Your task to perform on an android device: Go to display settings Image 0: 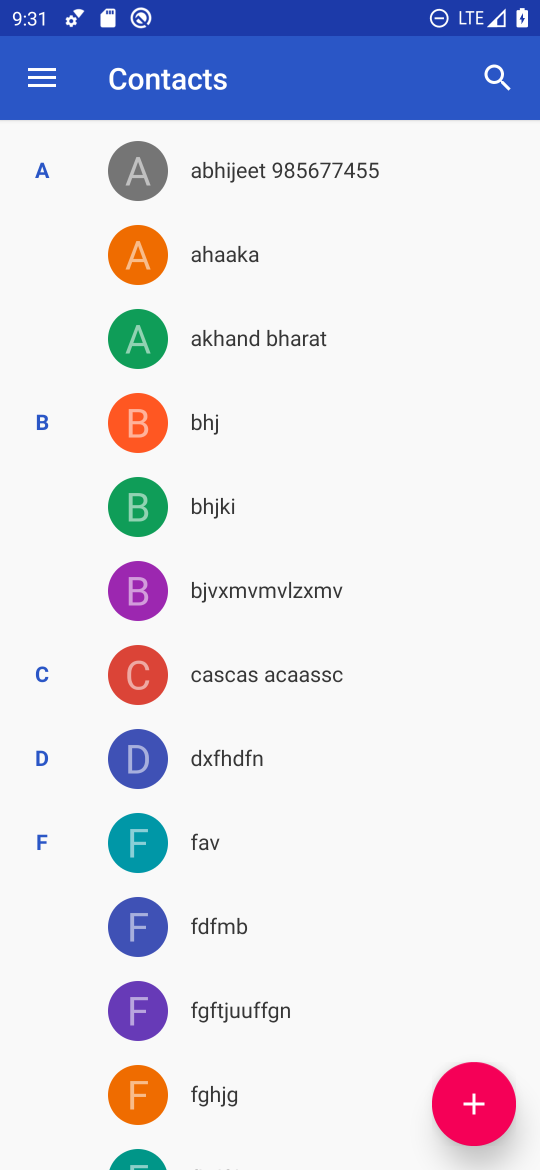
Step 0: press home button
Your task to perform on an android device: Go to display settings Image 1: 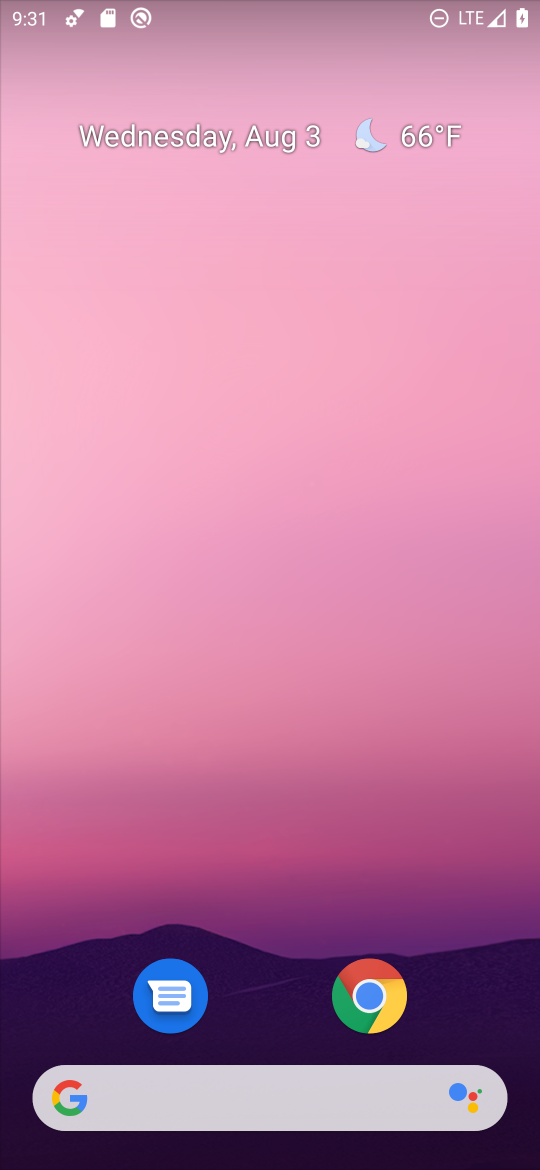
Step 1: drag from (347, 861) to (322, 22)
Your task to perform on an android device: Go to display settings Image 2: 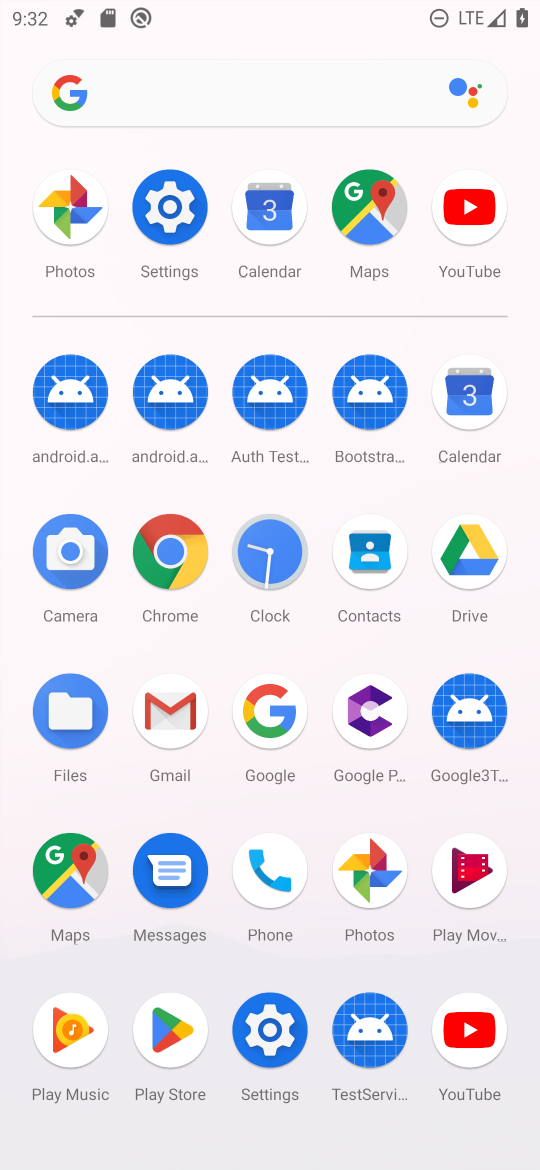
Step 2: click (189, 197)
Your task to perform on an android device: Go to display settings Image 3: 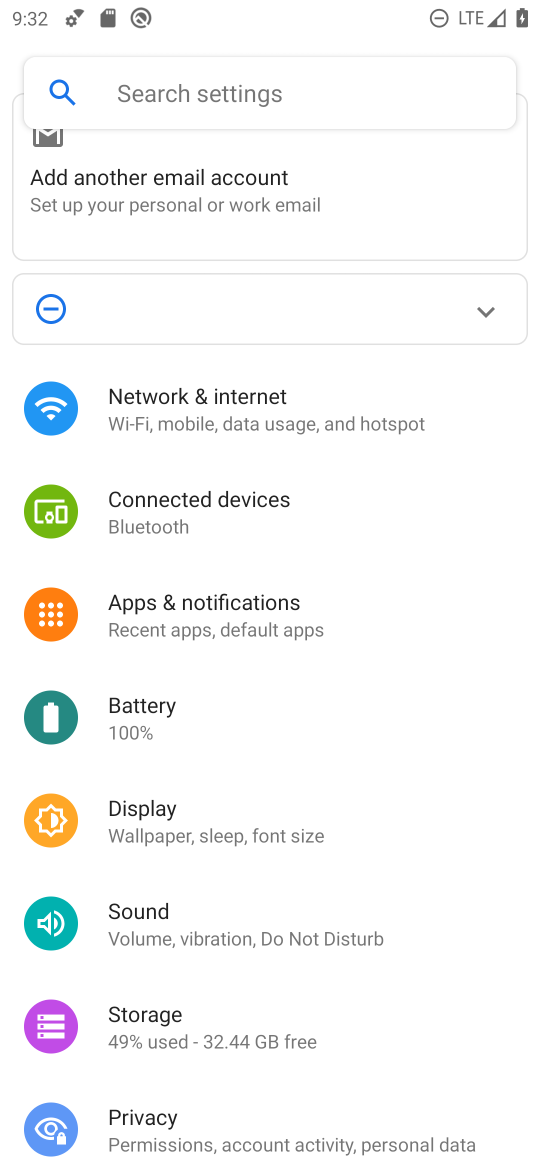
Step 3: click (217, 831)
Your task to perform on an android device: Go to display settings Image 4: 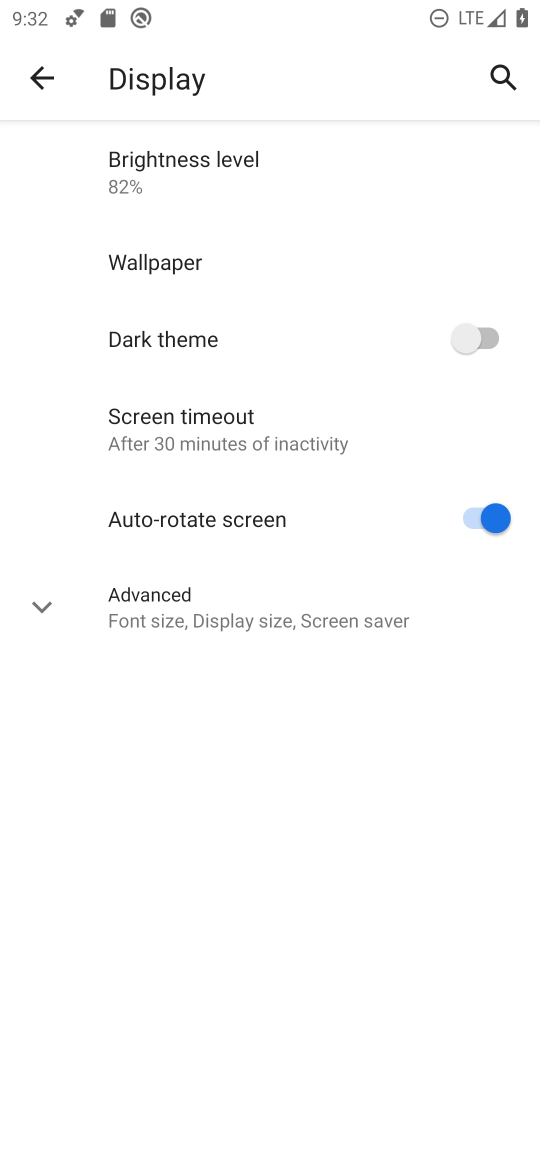
Step 4: task complete